Your task to perform on an android device: Go to accessibility settings Image 0: 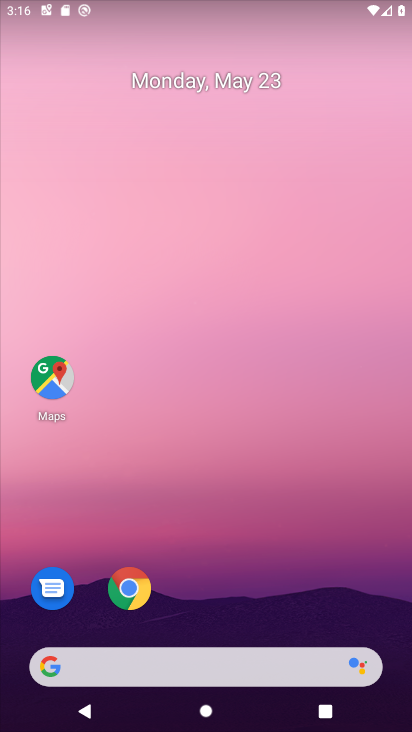
Step 0: drag from (173, 640) to (198, 174)
Your task to perform on an android device: Go to accessibility settings Image 1: 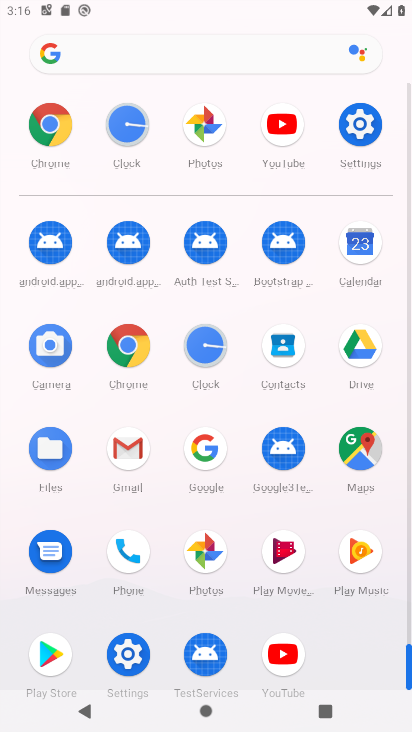
Step 1: click (346, 130)
Your task to perform on an android device: Go to accessibility settings Image 2: 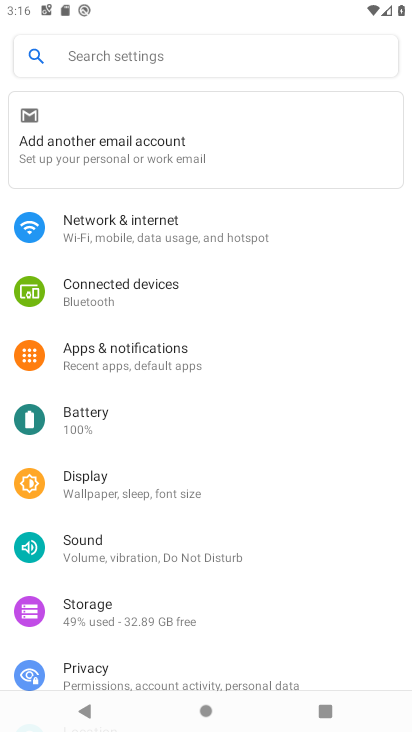
Step 2: drag from (175, 619) to (207, 353)
Your task to perform on an android device: Go to accessibility settings Image 3: 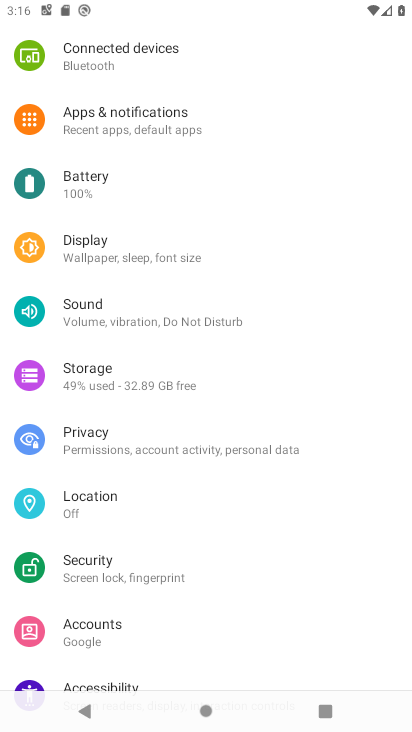
Step 3: drag from (135, 626) to (246, 118)
Your task to perform on an android device: Go to accessibility settings Image 4: 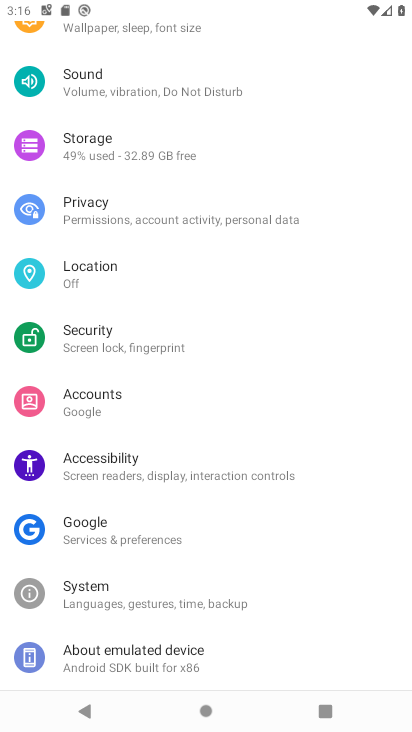
Step 4: click (146, 453)
Your task to perform on an android device: Go to accessibility settings Image 5: 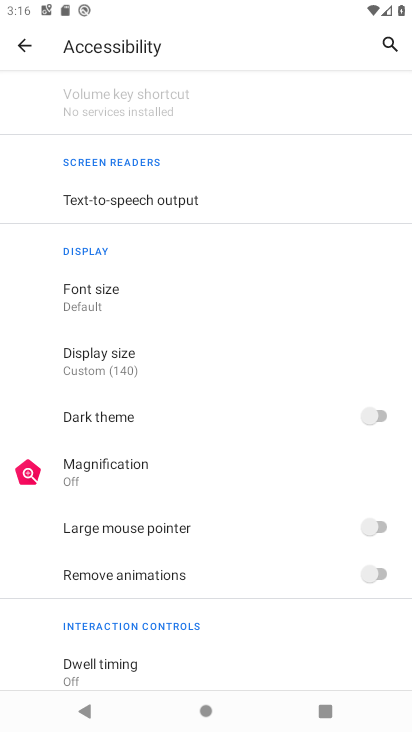
Step 5: task complete